Your task to perform on an android device: Check the news Image 0: 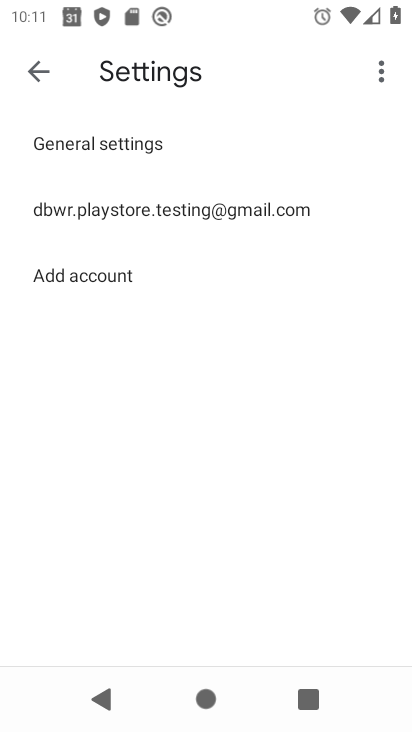
Step 0: press home button
Your task to perform on an android device: Check the news Image 1: 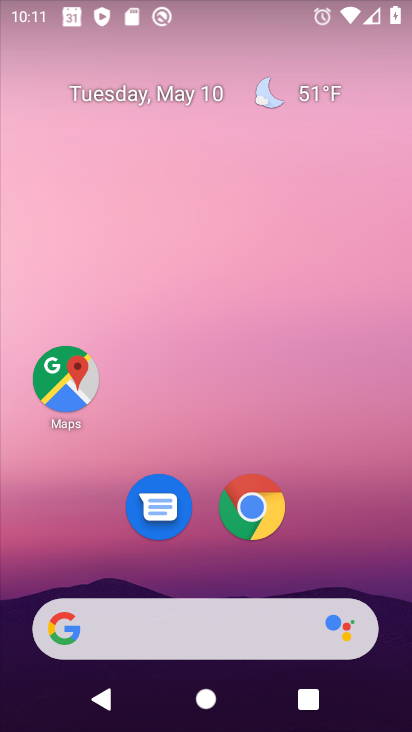
Step 1: click (185, 638)
Your task to perform on an android device: Check the news Image 2: 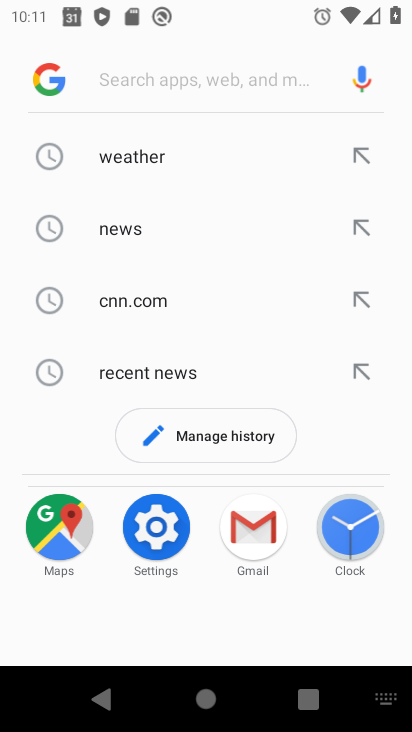
Step 2: click (129, 210)
Your task to perform on an android device: Check the news Image 3: 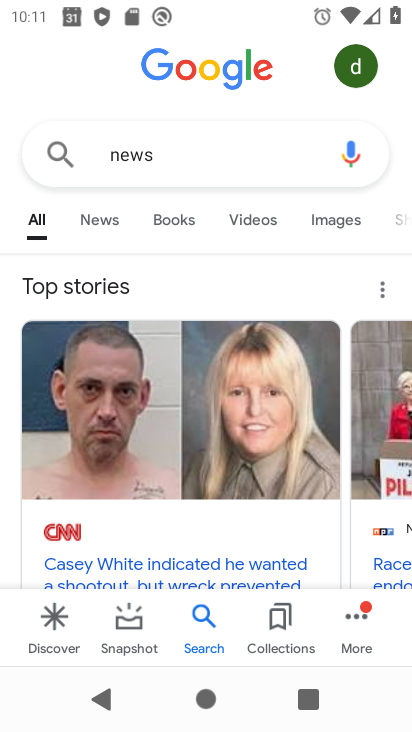
Step 3: task complete